Your task to perform on an android device: turn on location history Image 0: 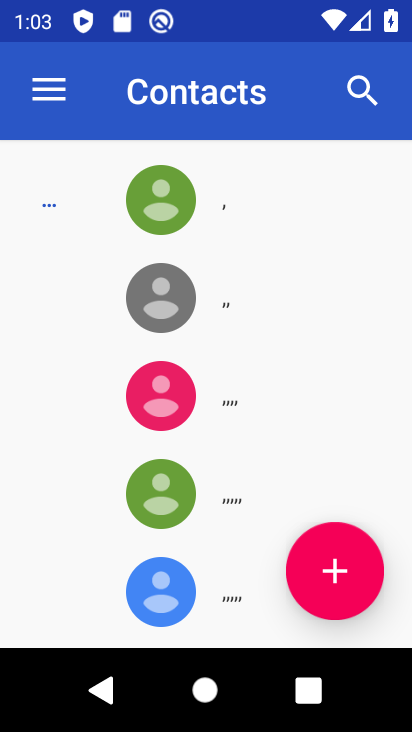
Step 0: press home button
Your task to perform on an android device: turn on location history Image 1: 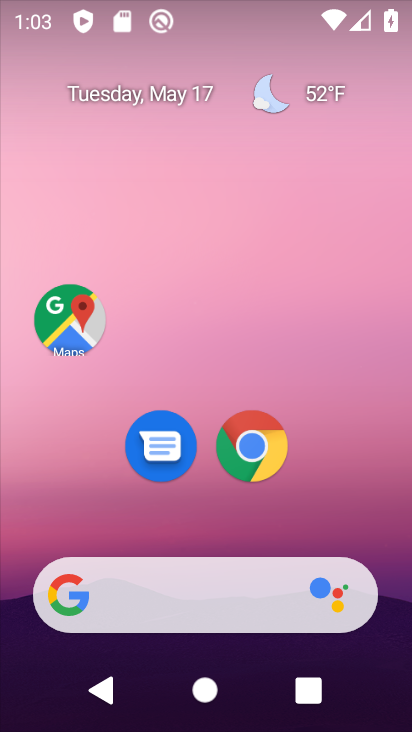
Step 1: drag from (348, 513) to (295, 117)
Your task to perform on an android device: turn on location history Image 2: 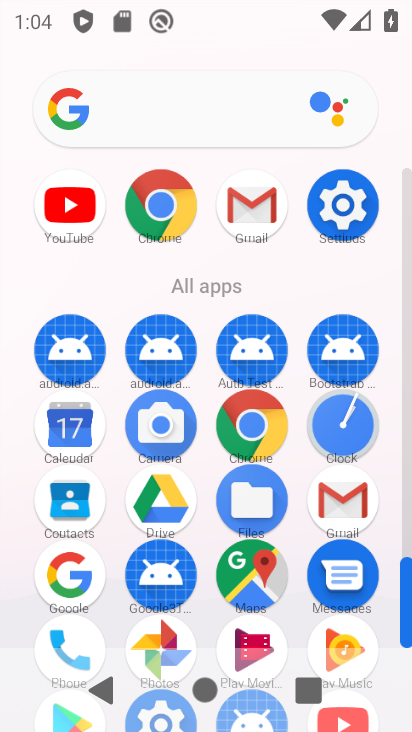
Step 2: click (348, 221)
Your task to perform on an android device: turn on location history Image 3: 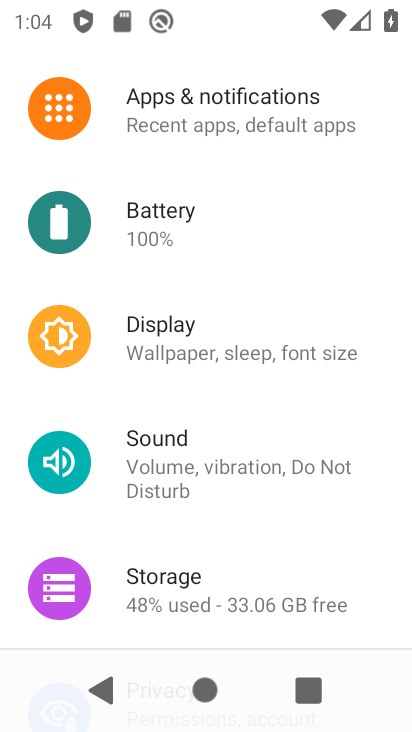
Step 3: drag from (246, 566) to (165, 282)
Your task to perform on an android device: turn on location history Image 4: 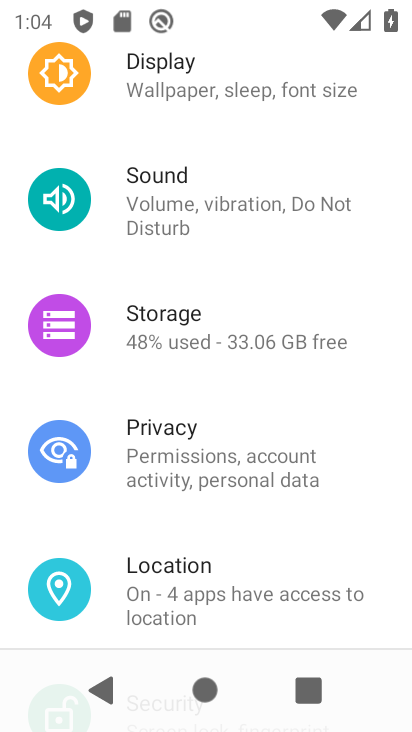
Step 4: click (197, 605)
Your task to perform on an android device: turn on location history Image 5: 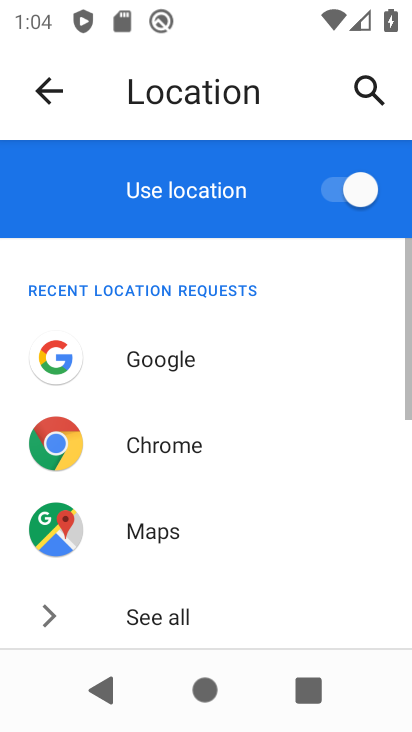
Step 5: drag from (257, 594) to (183, 284)
Your task to perform on an android device: turn on location history Image 6: 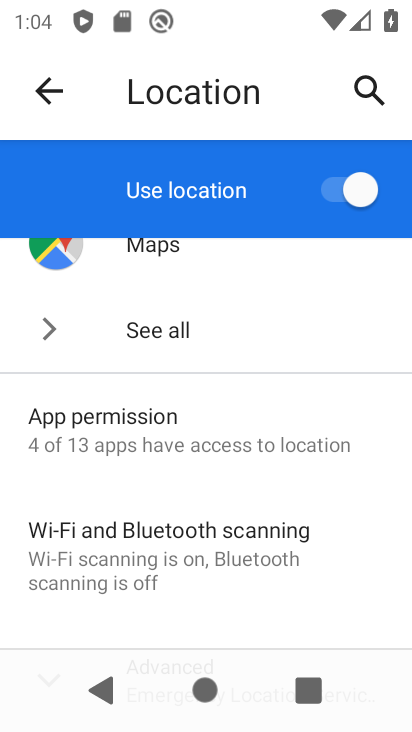
Step 6: drag from (186, 576) to (165, 379)
Your task to perform on an android device: turn on location history Image 7: 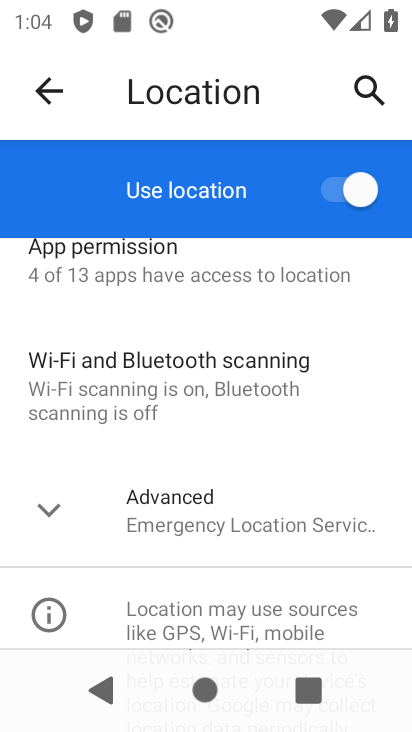
Step 7: click (221, 505)
Your task to perform on an android device: turn on location history Image 8: 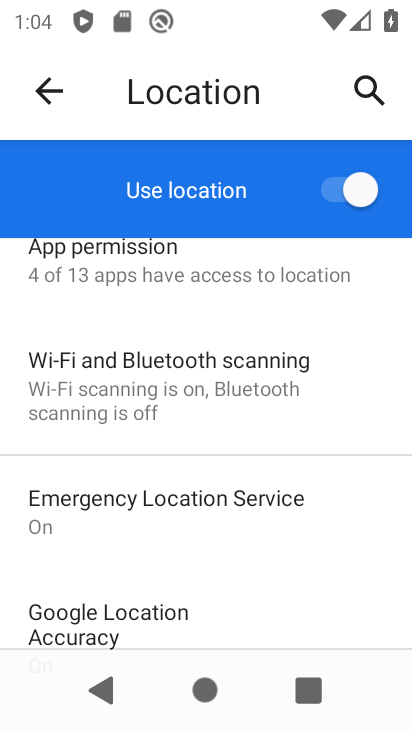
Step 8: drag from (286, 596) to (253, 358)
Your task to perform on an android device: turn on location history Image 9: 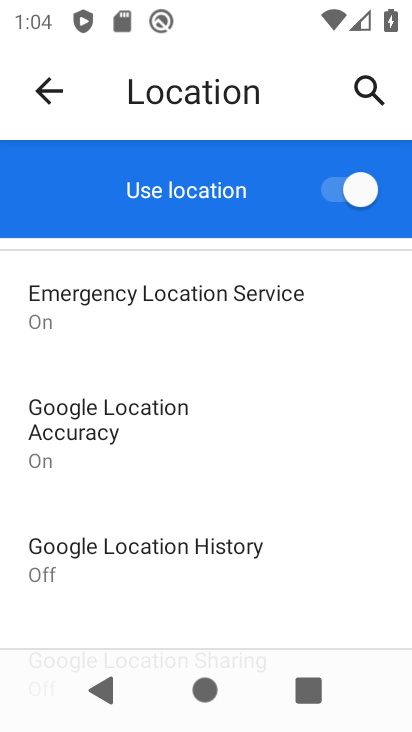
Step 9: click (236, 560)
Your task to perform on an android device: turn on location history Image 10: 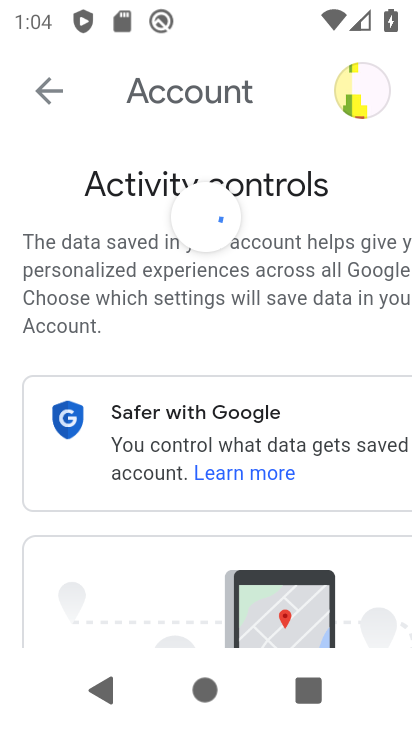
Step 10: task complete